Your task to perform on an android device: turn off improve location accuracy Image 0: 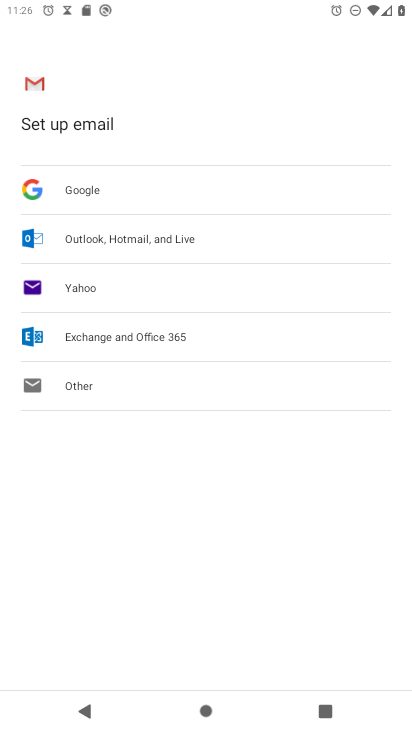
Step 0: press back button
Your task to perform on an android device: turn off improve location accuracy Image 1: 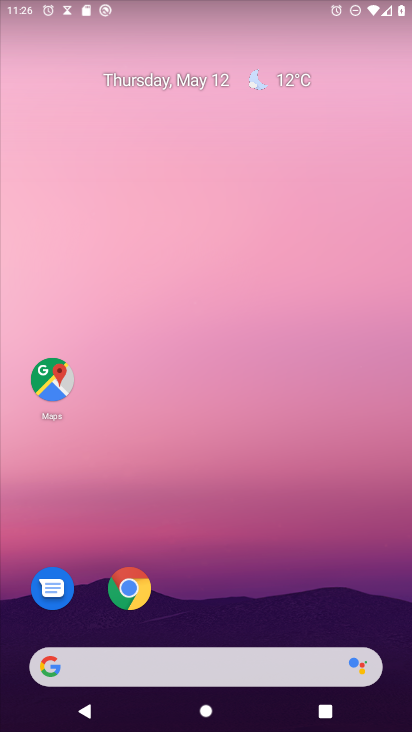
Step 1: drag from (246, 560) to (217, 68)
Your task to perform on an android device: turn off improve location accuracy Image 2: 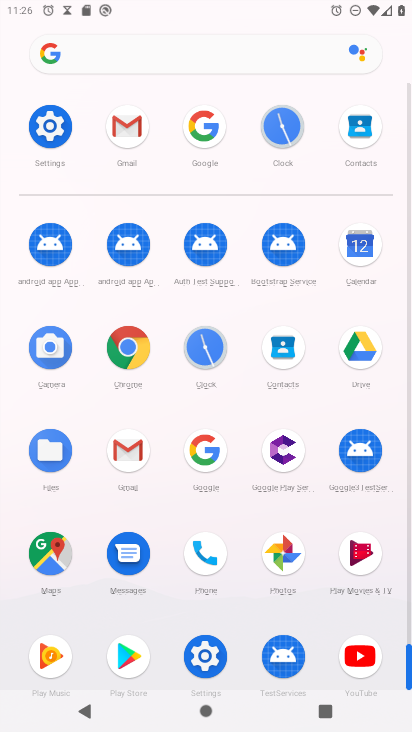
Step 2: click (49, 125)
Your task to perform on an android device: turn off improve location accuracy Image 3: 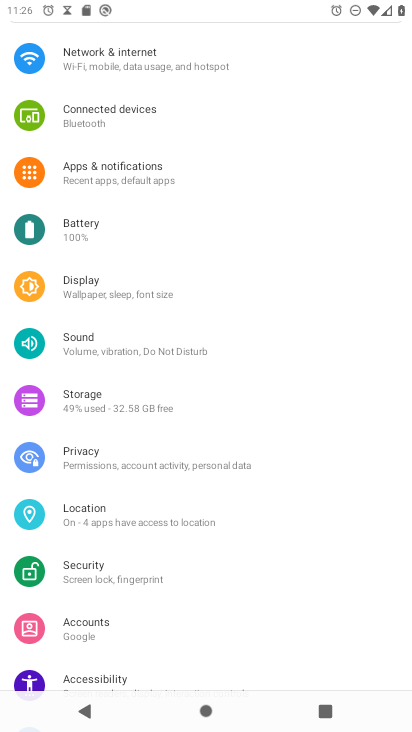
Step 3: click (114, 519)
Your task to perform on an android device: turn off improve location accuracy Image 4: 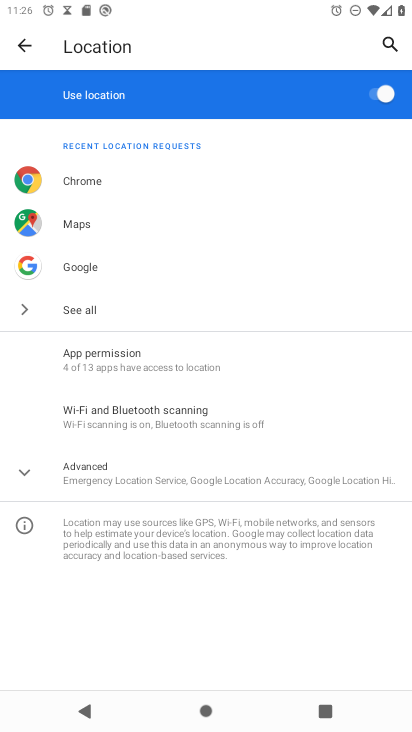
Step 4: click (146, 473)
Your task to perform on an android device: turn off improve location accuracy Image 5: 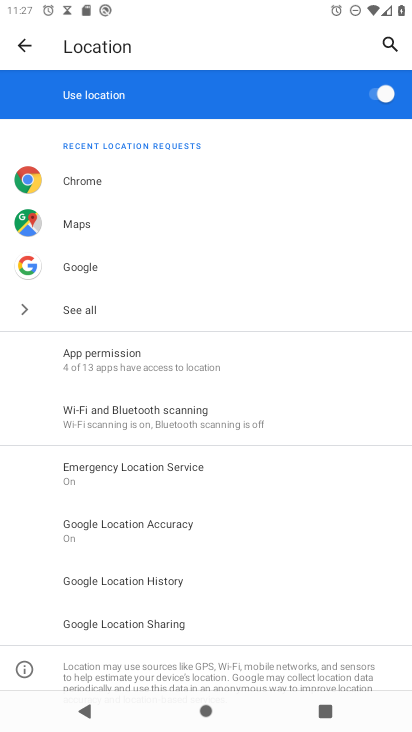
Step 5: click (163, 526)
Your task to perform on an android device: turn off improve location accuracy Image 6: 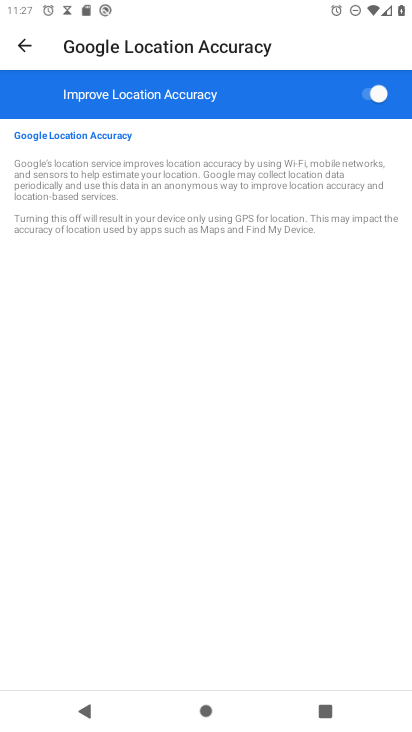
Step 6: click (368, 94)
Your task to perform on an android device: turn off improve location accuracy Image 7: 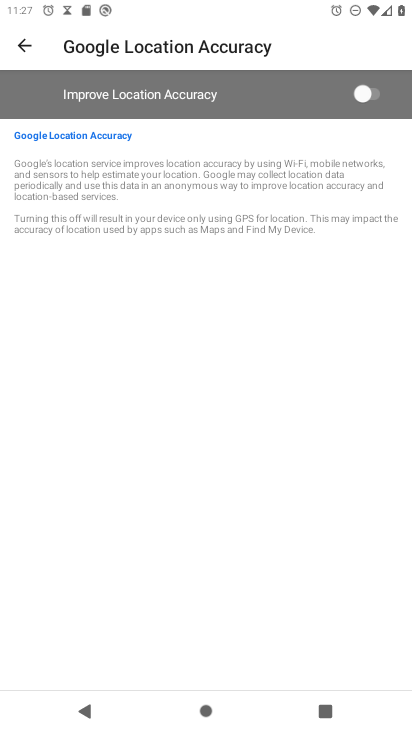
Step 7: task complete